Your task to perform on an android device: allow cookies in the chrome app Image 0: 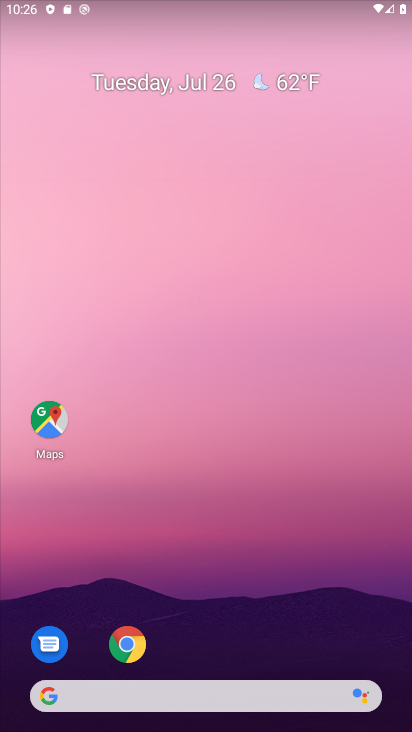
Step 0: click (125, 647)
Your task to perform on an android device: allow cookies in the chrome app Image 1: 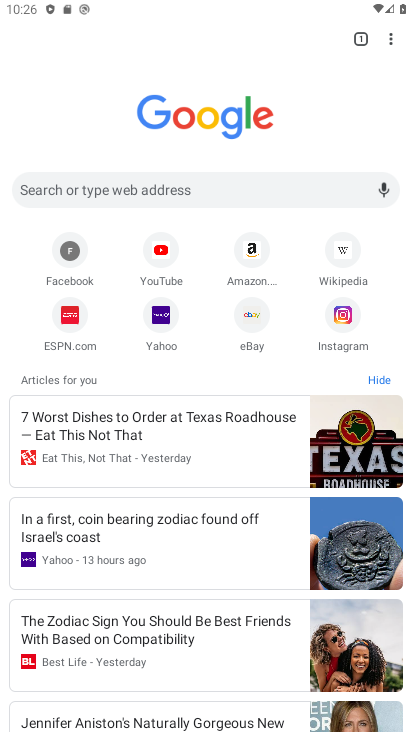
Step 1: click (396, 42)
Your task to perform on an android device: allow cookies in the chrome app Image 2: 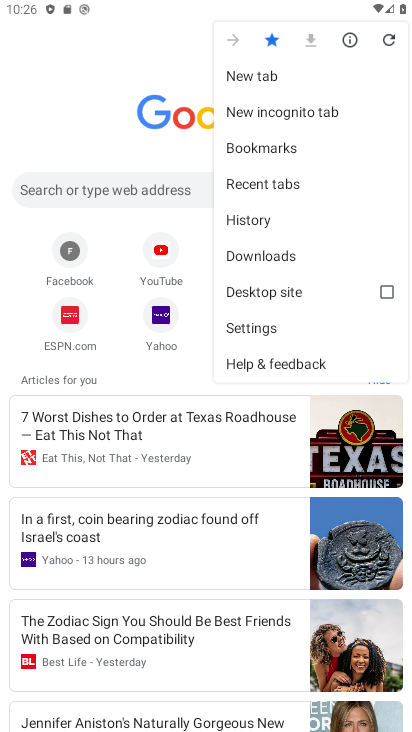
Step 2: click (266, 328)
Your task to perform on an android device: allow cookies in the chrome app Image 3: 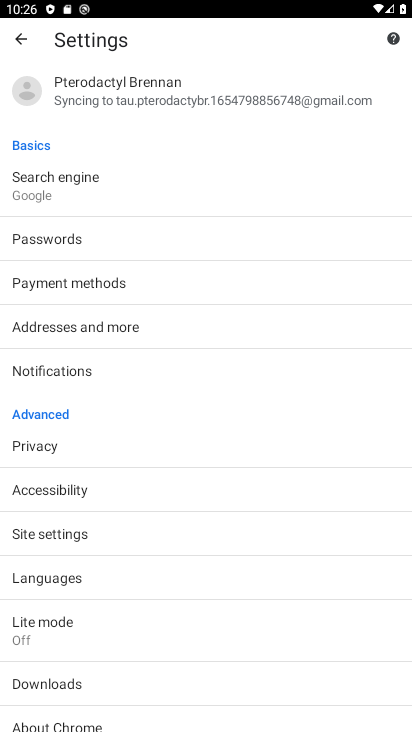
Step 3: click (68, 528)
Your task to perform on an android device: allow cookies in the chrome app Image 4: 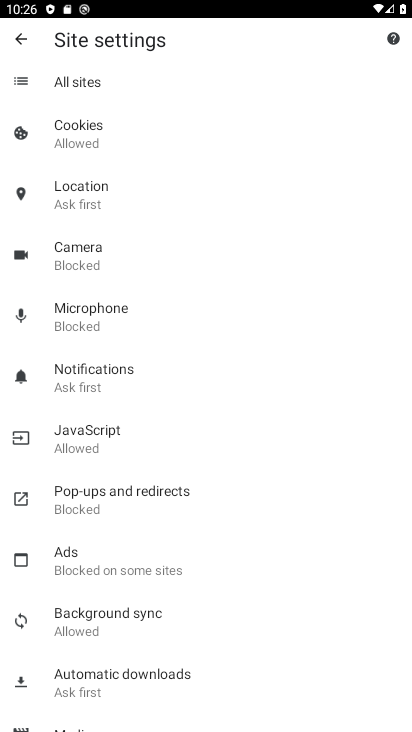
Step 4: click (182, 134)
Your task to perform on an android device: allow cookies in the chrome app Image 5: 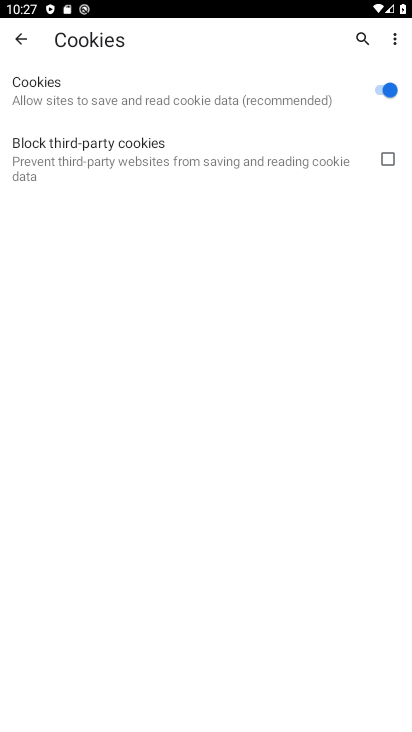
Step 5: task complete